Your task to perform on an android device: stop showing notifications on the lock screen Image 0: 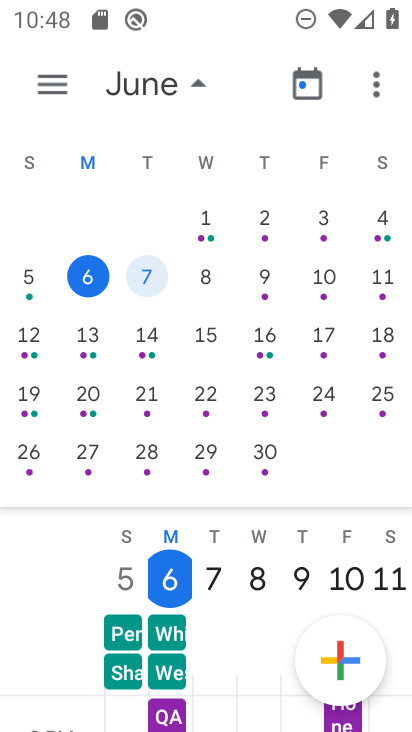
Step 0: press home button
Your task to perform on an android device: stop showing notifications on the lock screen Image 1: 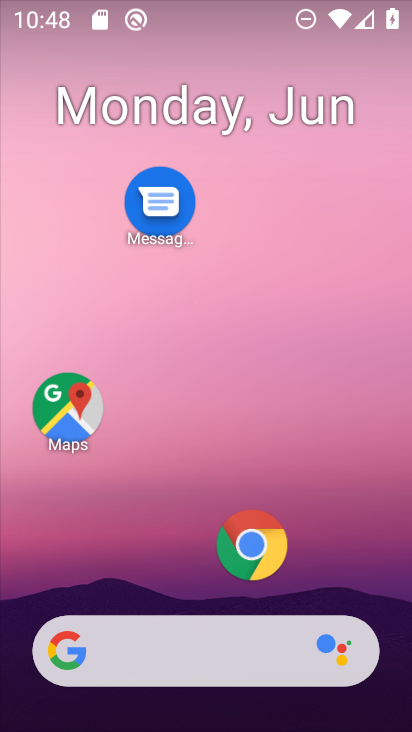
Step 1: drag from (147, 549) to (249, 181)
Your task to perform on an android device: stop showing notifications on the lock screen Image 2: 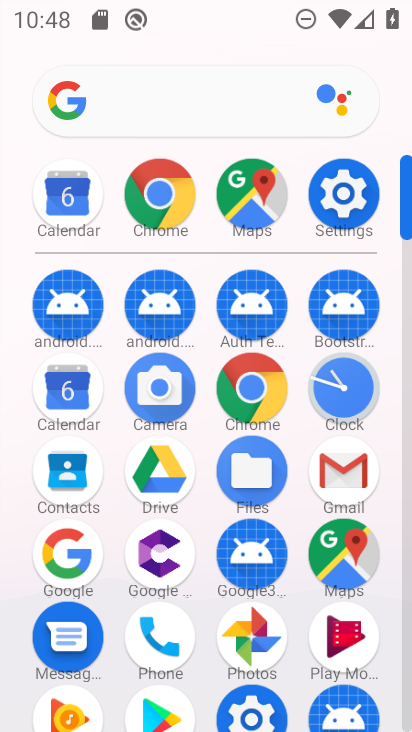
Step 2: click (332, 199)
Your task to perform on an android device: stop showing notifications on the lock screen Image 3: 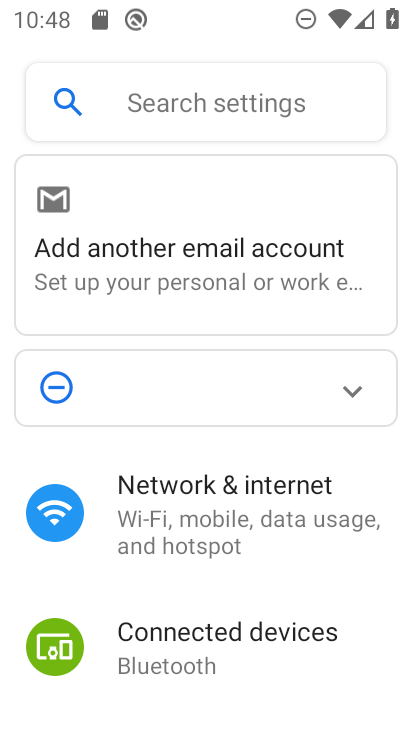
Step 3: drag from (288, 490) to (335, 366)
Your task to perform on an android device: stop showing notifications on the lock screen Image 4: 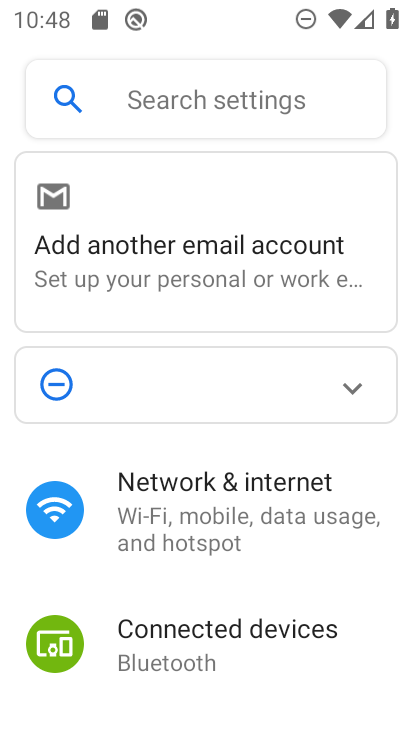
Step 4: drag from (265, 613) to (354, 297)
Your task to perform on an android device: stop showing notifications on the lock screen Image 5: 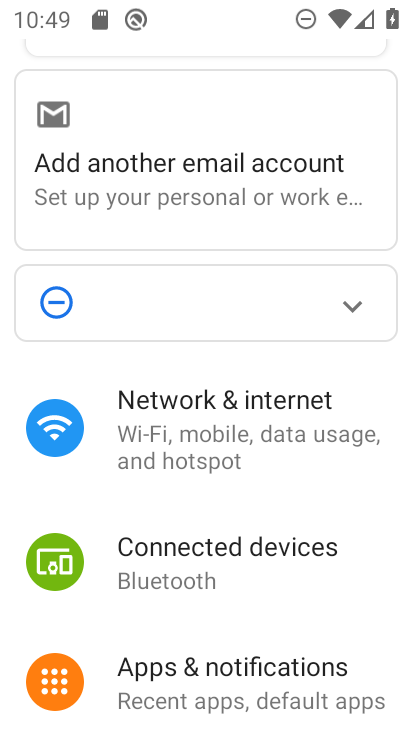
Step 5: click (212, 683)
Your task to perform on an android device: stop showing notifications on the lock screen Image 6: 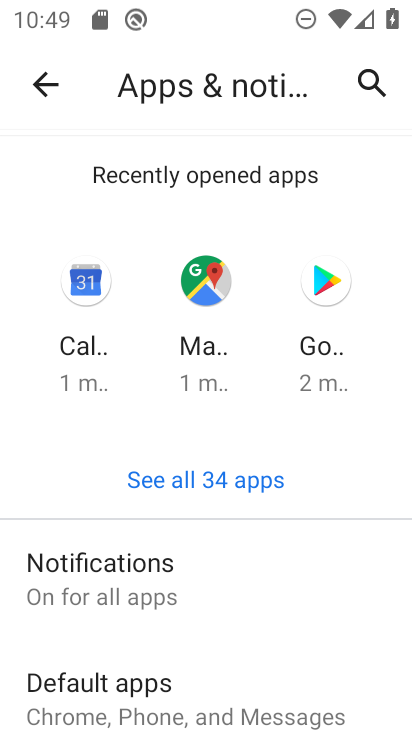
Step 6: click (125, 577)
Your task to perform on an android device: stop showing notifications on the lock screen Image 7: 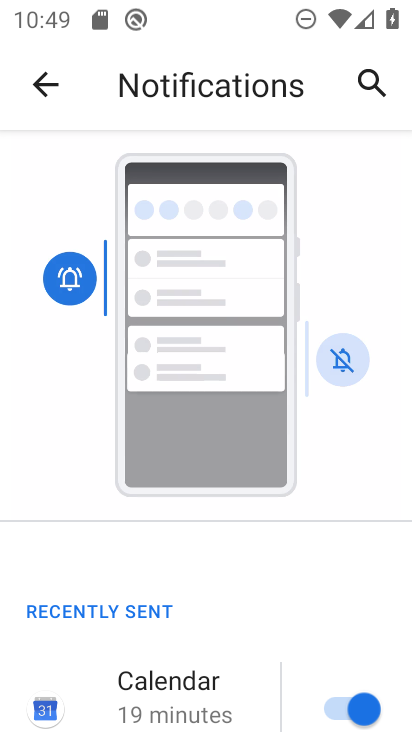
Step 7: drag from (216, 694) to (333, 79)
Your task to perform on an android device: stop showing notifications on the lock screen Image 8: 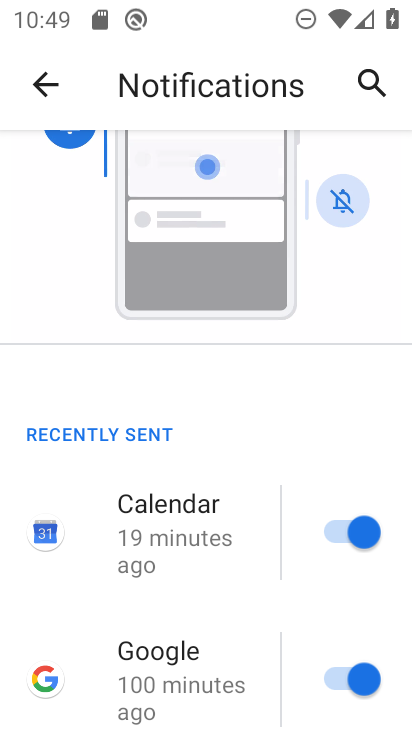
Step 8: drag from (259, 436) to (312, 162)
Your task to perform on an android device: stop showing notifications on the lock screen Image 9: 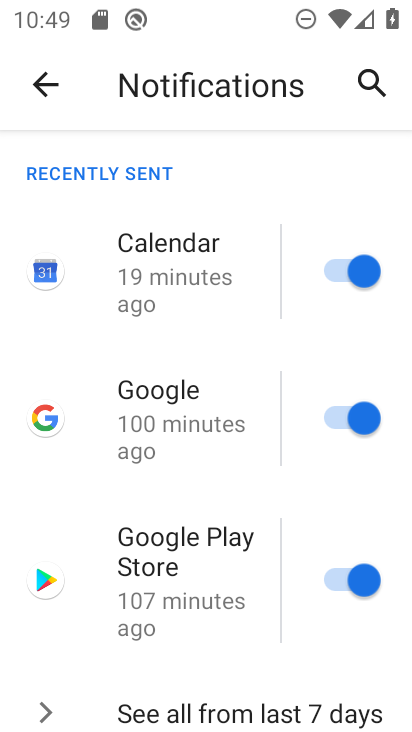
Step 9: drag from (255, 674) to (270, 245)
Your task to perform on an android device: stop showing notifications on the lock screen Image 10: 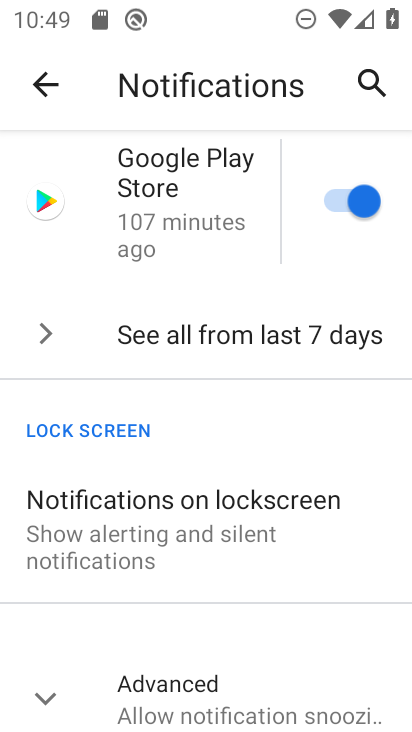
Step 10: click (176, 525)
Your task to perform on an android device: stop showing notifications on the lock screen Image 11: 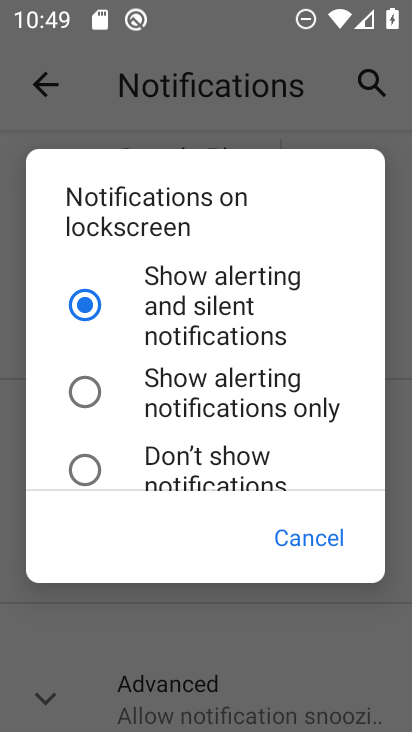
Step 11: click (84, 465)
Your task to perform on an android device: stop showing notifications on the lock screen Image 12: 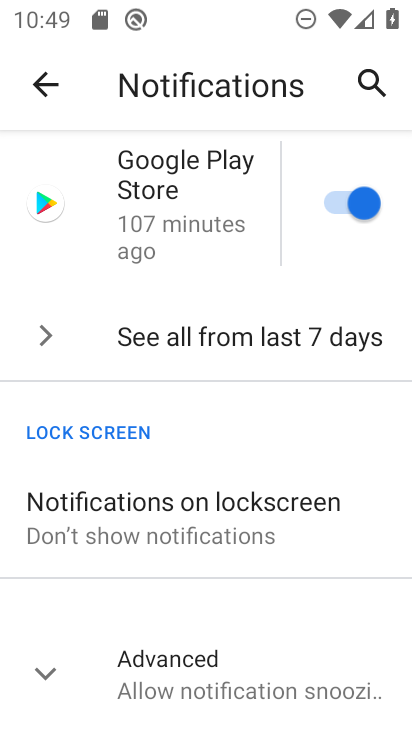
Step 12: task complete